Your task to perform on an android device: add a label to a message in the gmail app Image 0: 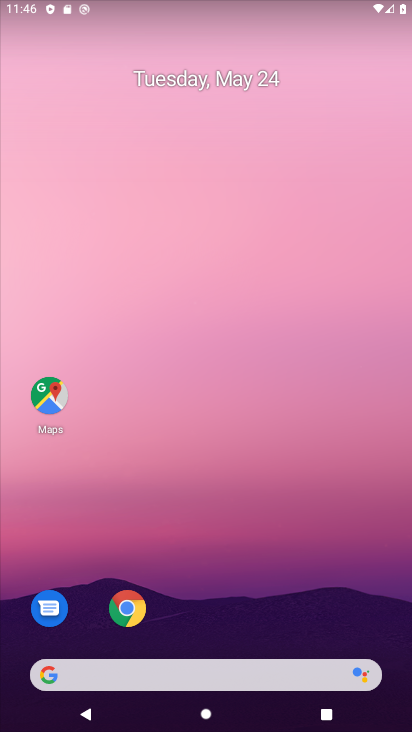
Step 0: drag from (179, 641) to (268, 202)
Your task to perform on an android device: add a label to a message in the gmail app Image 1: 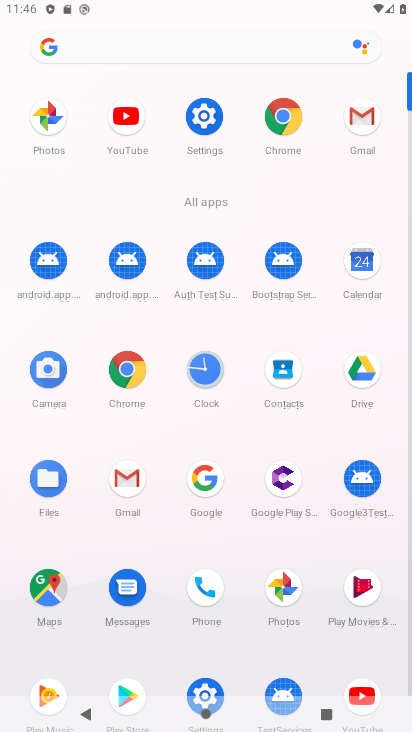
Step 1: click (130, 479)
Your task to perform on an android device: add a label to a message in the gmail app Image 2: 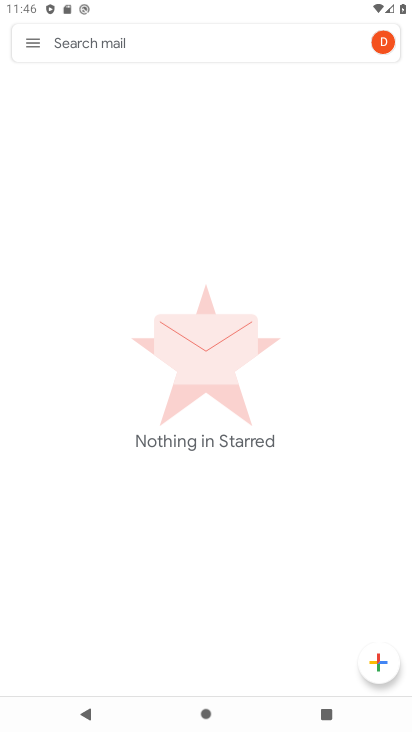
Step 2: click (36, 43)
Your task to perform on an android device: add a label to a message in the gmail app Image 3: 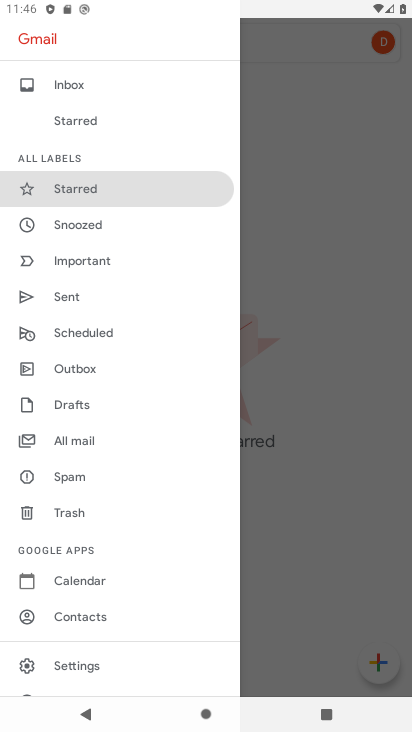
Step 3: click (82, 437)
Your task to perform on an android device: add a label to a message in the gmail app Image 4: 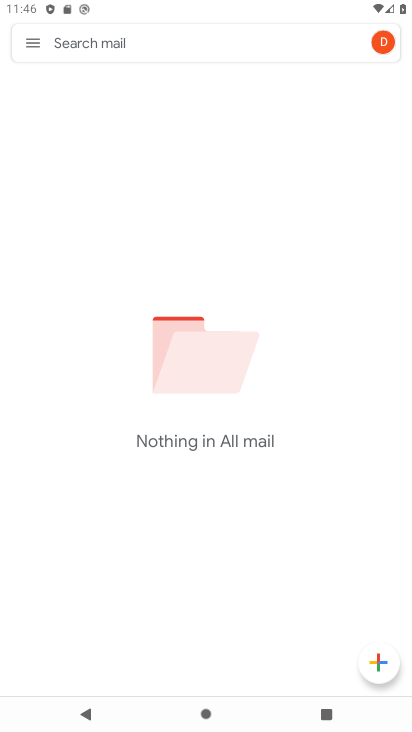
Step 4: task complete